Your task to perform on an android device: What is the recent news? Image 0: 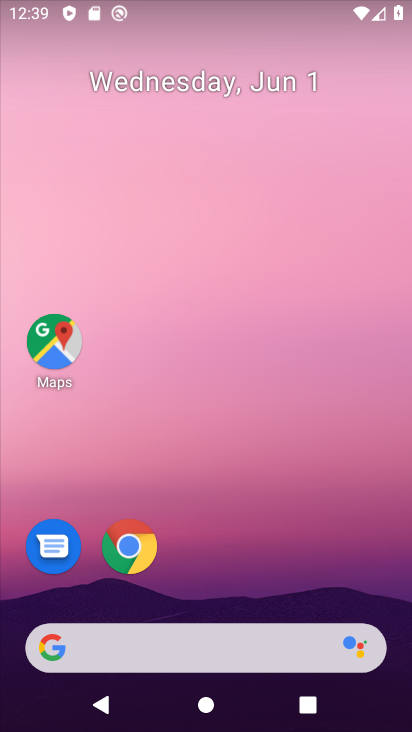
Step 0: drag from (4, 230) to (385, 210)
Your task to perform on an android device: What is the recent news? Image 1: 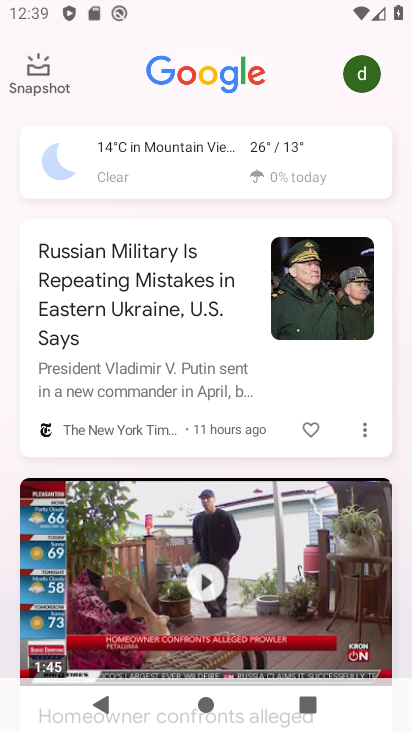
Step 1: task complete